Your task to perform on an android device: Open Youtube and go to the subscriptions tab Image 0: 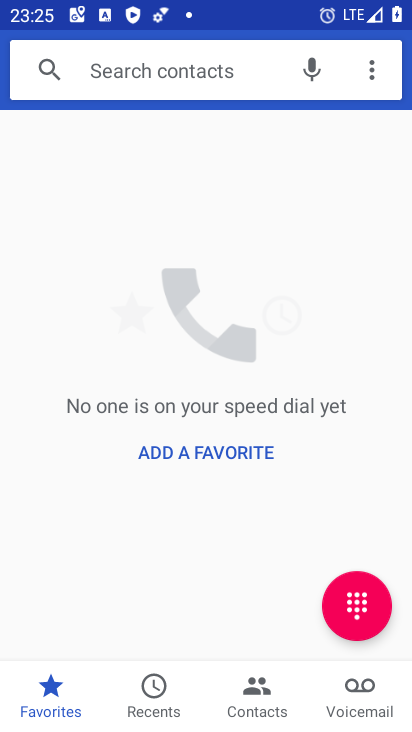
Step 0: press home button
Your task to perform on an android device: Open Youtube and go to the subscriptions tab Image 1: 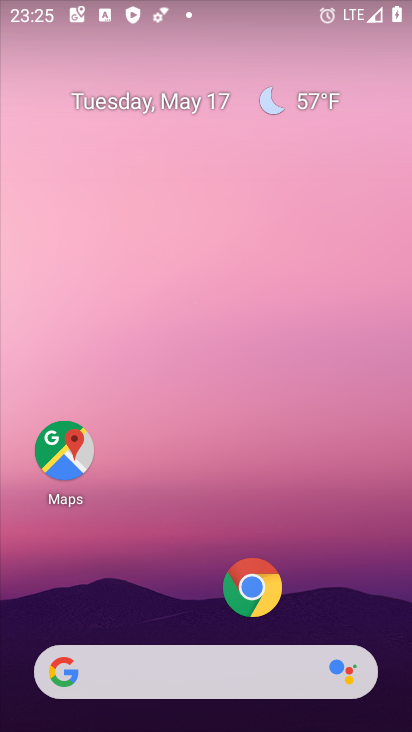
Step 1: drag from (26, 551) to (192, 228)
Your task to perform on an android device: Open Youtube and go to the subscriptions tab Image 2: 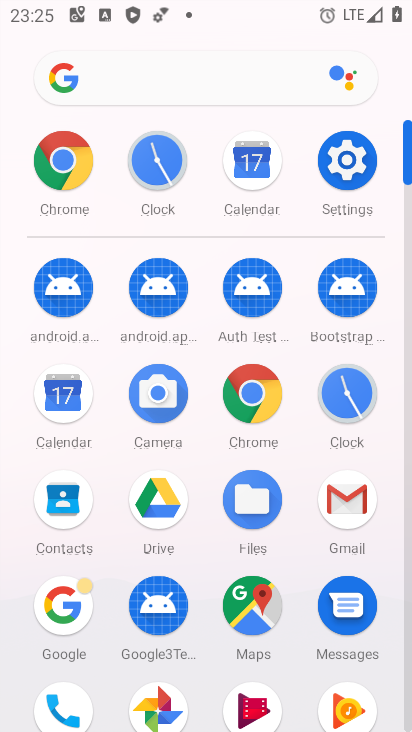
Step 2: drag from (25, 587) to (253, 247)
Your task to perform on an android device: Open Youtube and go to the subscriptions tab Image 3: 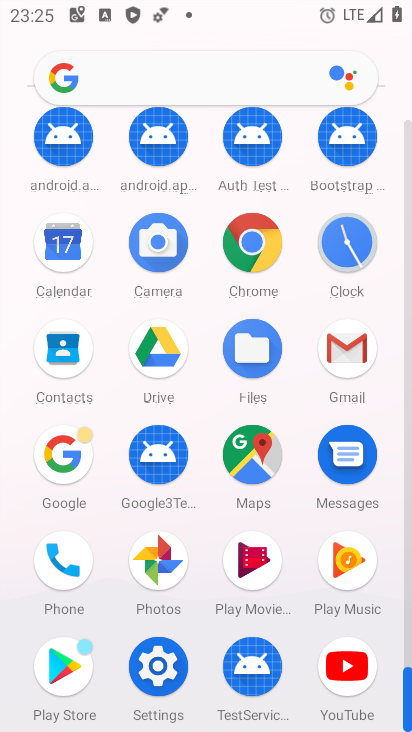
Step 3: click (331, 670)
Your task to perform on an android device: Open Youtube and go to the subscriptions tab Image 4: 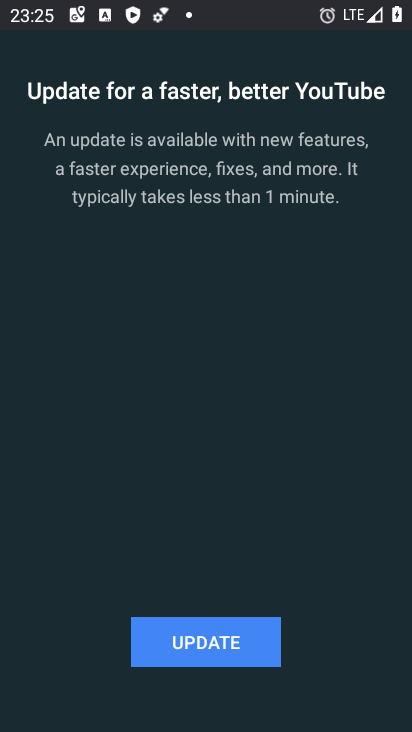
Step 4: task complete